Your task to perform on an android device: uninstall "Instagram" Image 0: 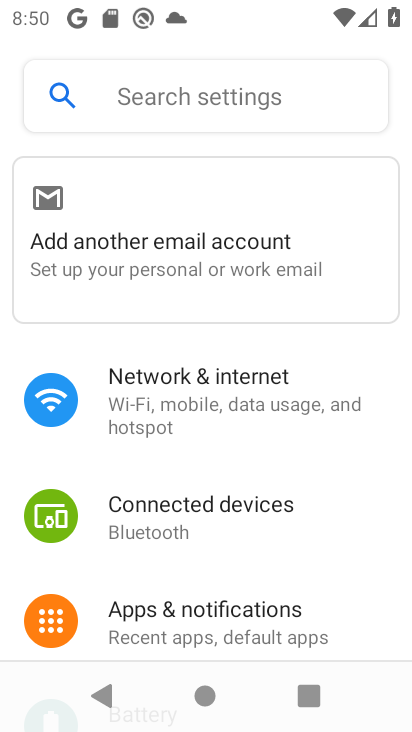
Step 0: drag from (222, 513) to (222, 276)
Your task to perform on an android device: uninstall "Instagram" Image 1: 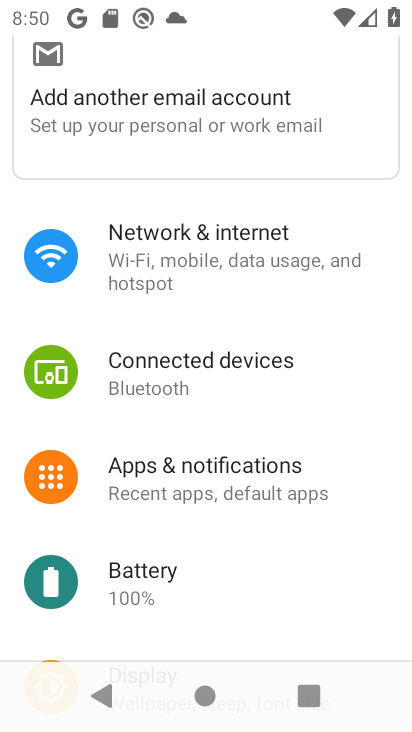
Step 1: drag from (318, 562) to (308, 421)
Your task to perform on an android device: uninstall "Instagram" Image 2: 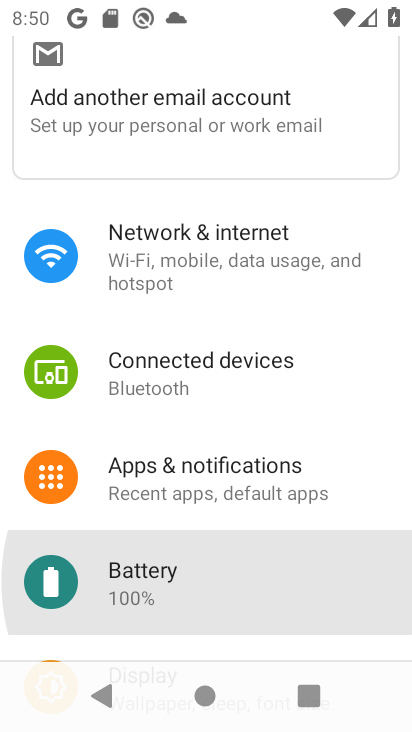
Step 2: drag from (306, 505) to (298, 397)
Your task to perform on an android device: uninstall "Instagram" Image 3: 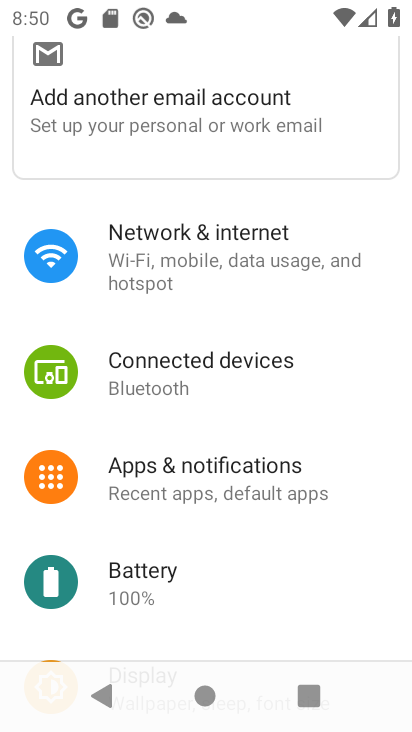
Step 3: drag from (224, 319) to (216, 599)
Your task to perform on an android device: uninstall "Instagram" Image 4: 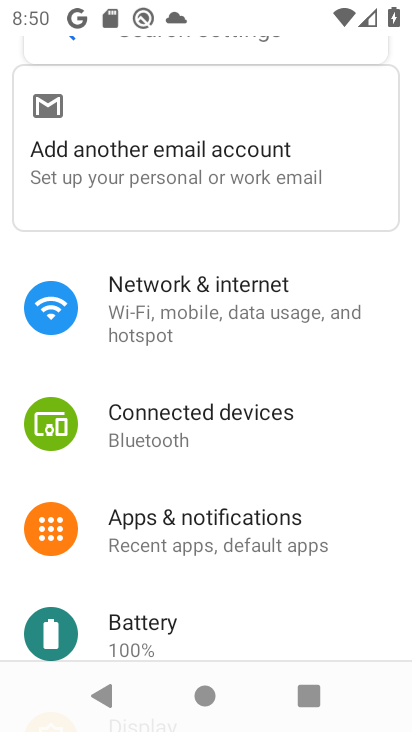
Step 4: drag from (169, 385) to (189, 565)
Your task to perform on an android device: uninstall "Instagram" Image 5: 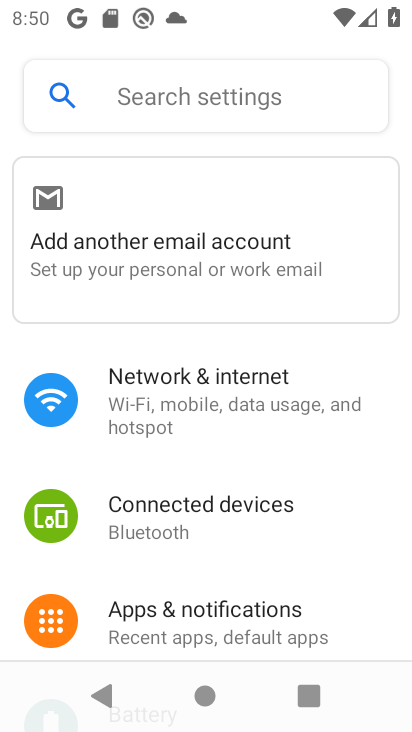
Step 5: drag from (175, 453) to (175, 611)
Your task to perform on an android device: uninstall "Instagram" Image 6: 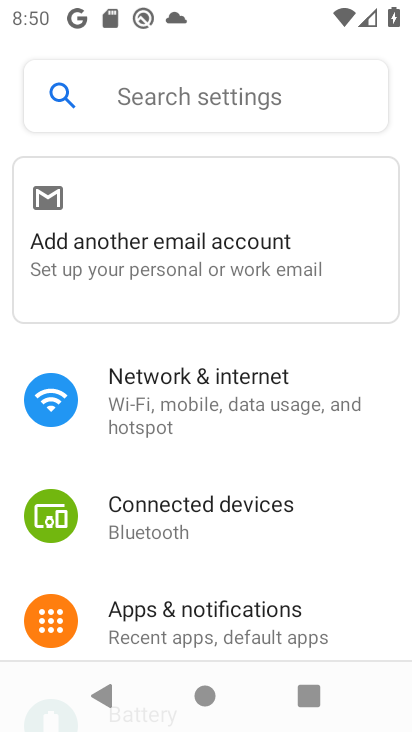
Step 6: press back button
Your task to perform on an android device: uninstall "Instagram" Image 7: 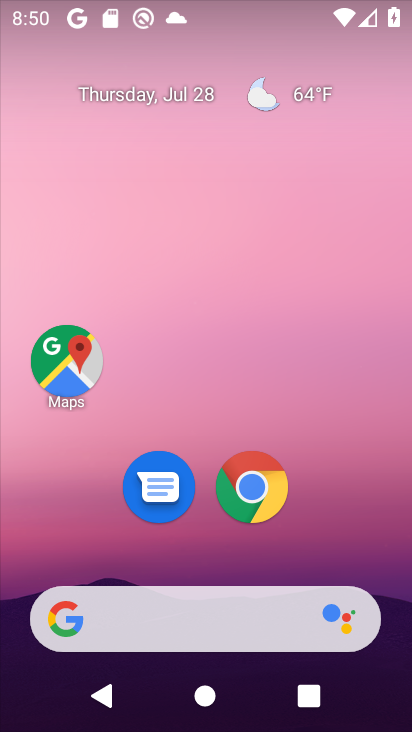
Step 7: drag from (172, 196) to (236, 63)
Your task to perform on an android device: uninstall "Instagram" Image 8: 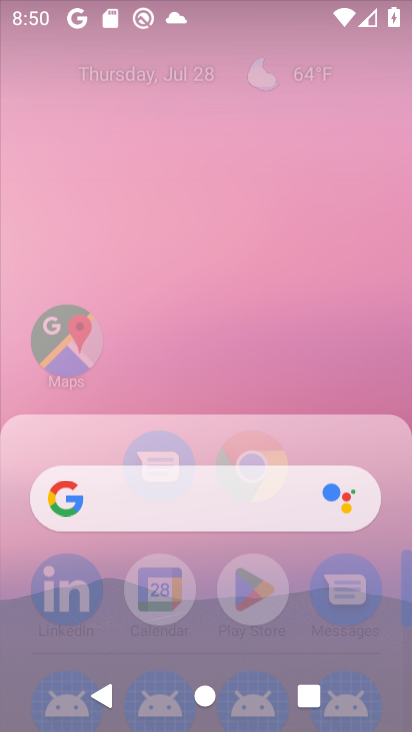
Step 8: drag from (262, 475) to (220, 166)
Your task to perform on an android device: uninstall "Instagram" Image 9: 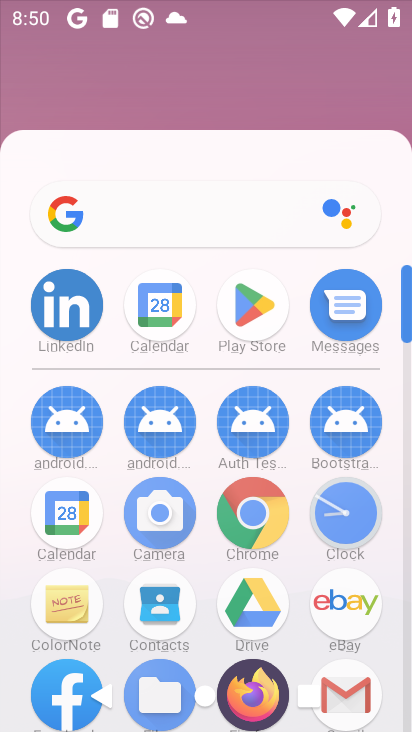
Step 9: drag from (231, 532) to (191, 253)
Your task to perform on an android device: uninstall "Instagram" Image 10: 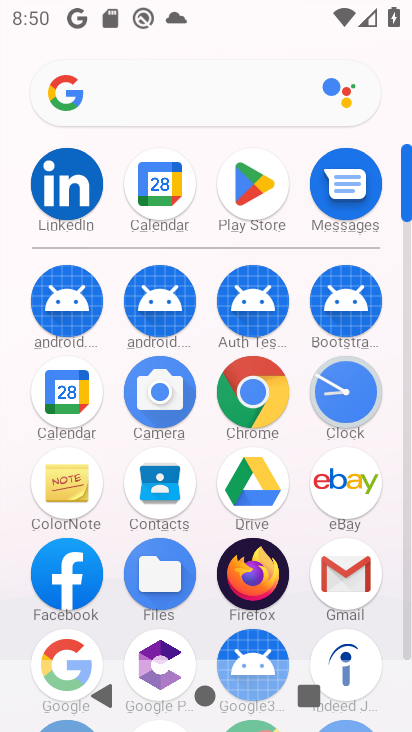
Step 10: click (241, 191)
Your task to perform on an android device: uninstall "Instagram" Image 11: 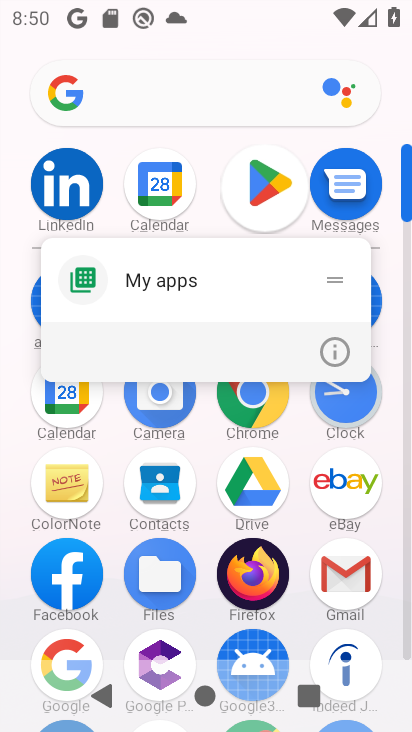
Step 11: click (252, 194)
Your task to perform on an android device: uninstall "Instagram" Image 12: 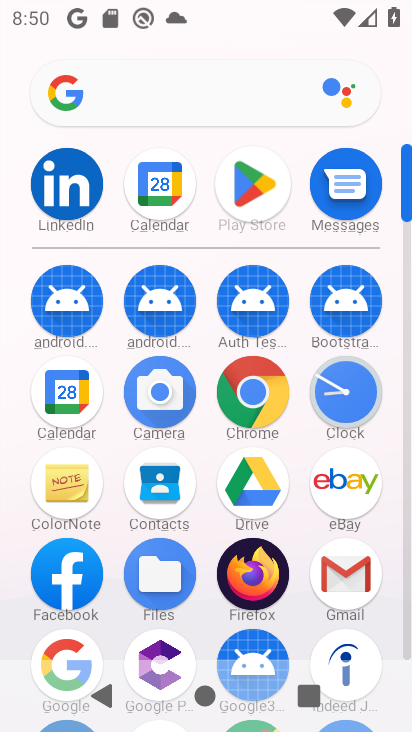
Step 12: click (255, 194)
Your task to perform on an android device: uninstall "Instagram" Image 13: 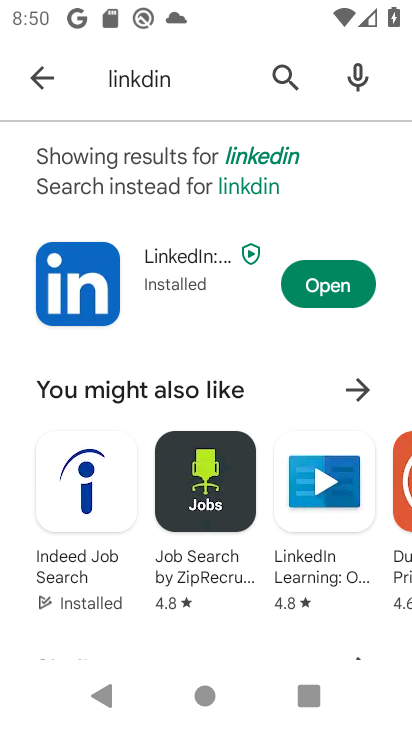
Step 13: click (258, 190)
Your task to perform on an android device: uninstall "Instagram" Image 14: 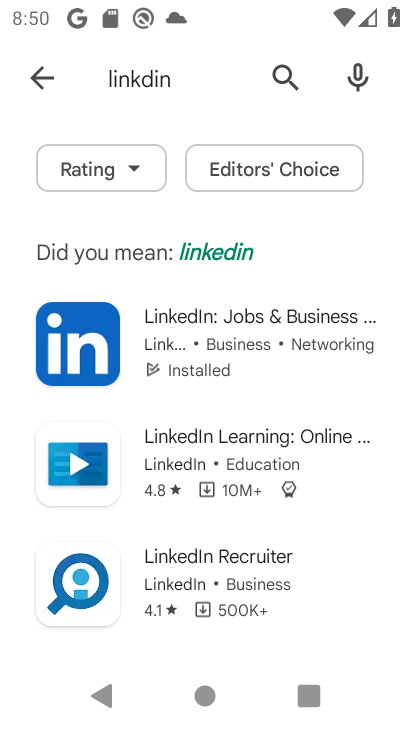
Step 14: click (47, 75)
Your task to perform on an android device: uninstall "Instagram" Image 15: 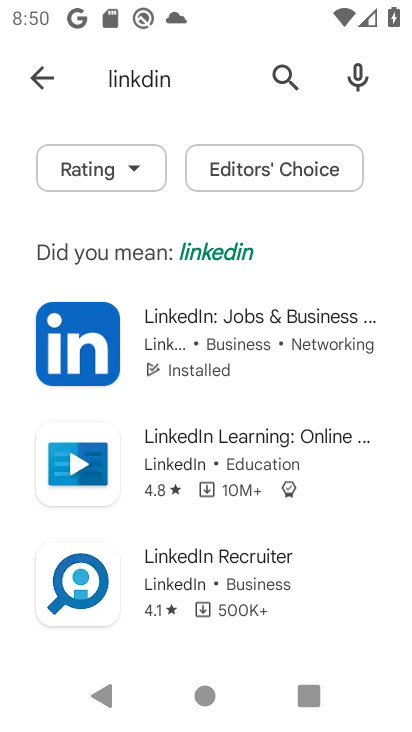
Step 15: click (39, 71)
Your task to perform on an android device: uninstall "Instagram" Image 16: 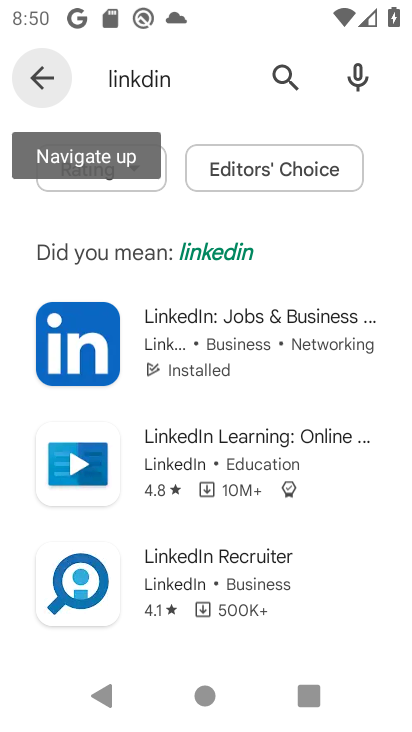
Step 16: click (59, 86)
Your task to perform on an android device: uninstall "Instagram" Image 17: 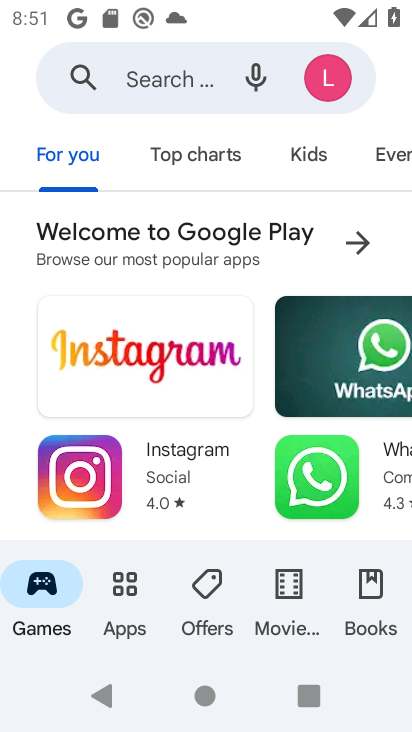
Step 17: click (160, 75)
Your task to perform on an android device: uninstall "Instagram" Image 18: 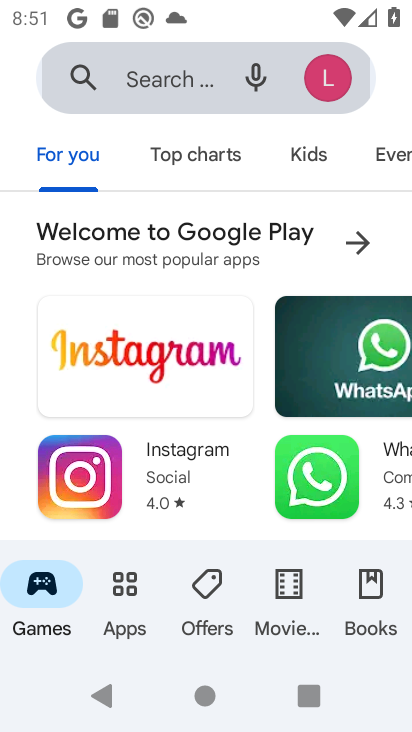
Step 18: click (138, 81)
Your task to perform on an android device: uninstall "Instagram" Image 19: 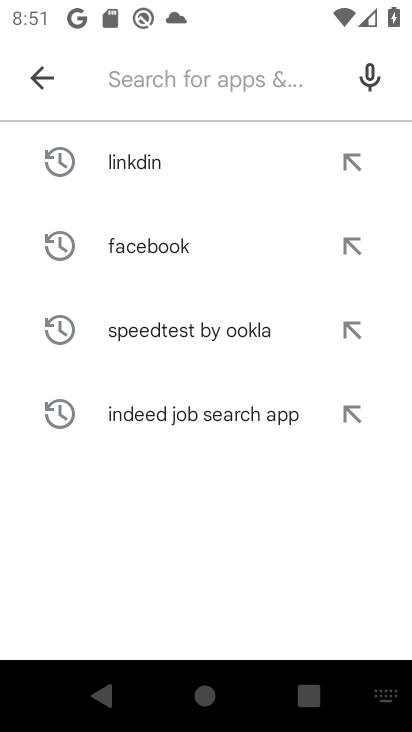
Step 19: click (158, 74)
Your task to perform on an android device: uninstall "Instagram" Image 20: 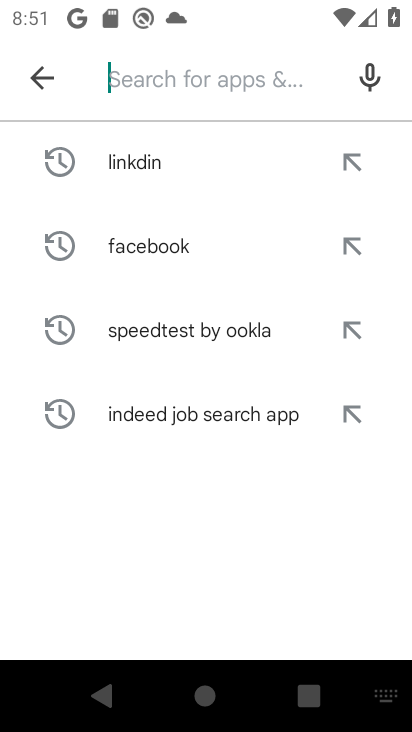
Step 20: click (151, 83)
Your task to perform on an android device: uninstall "Instagram" Image 21: 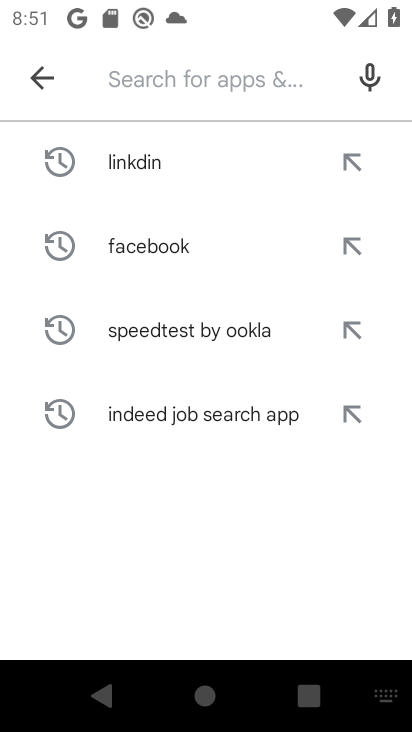
Step 21: type "instagram"
Your task to perform on an android device: uninstall "Instagram" Image 22: 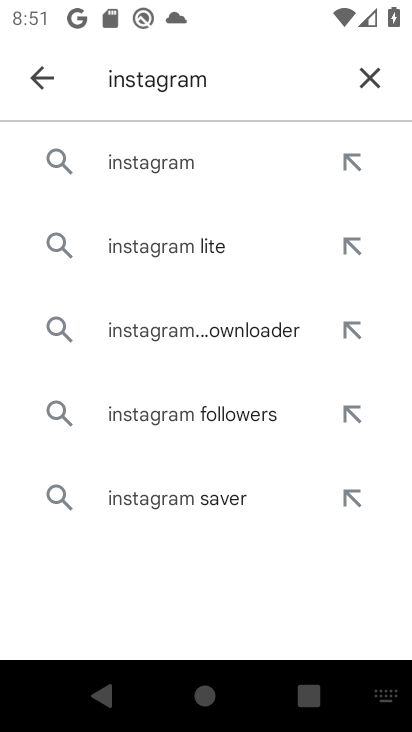
Step 22: click (336, 166)
Your task to perform on an android device: uninstall "Instagram" Image 23: 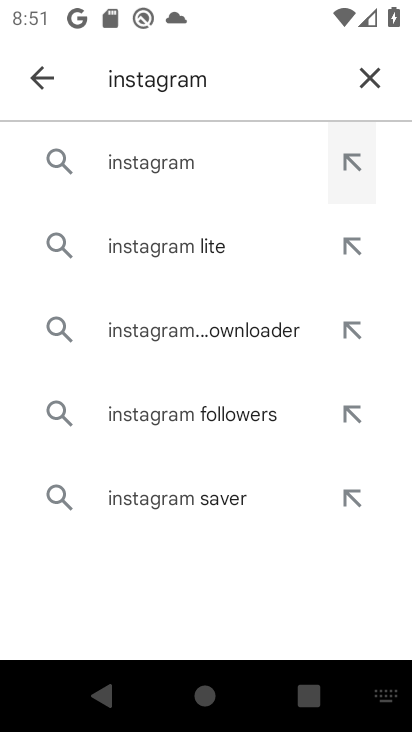
Step 23: click (340, 166)
Your task to perform on an android device: uninstall "Instagram" Image 24: 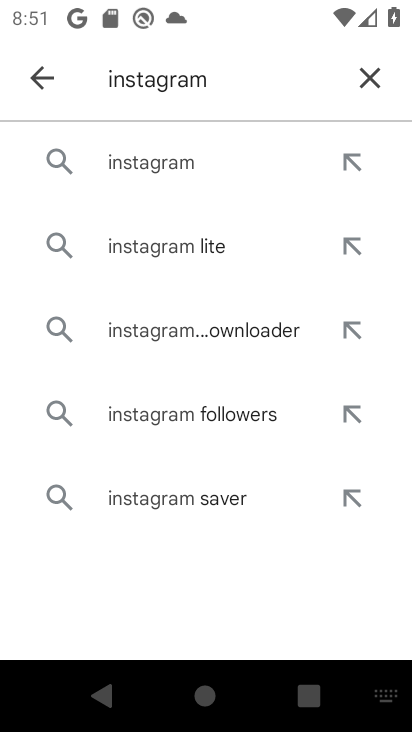
Step 24: click (340, 166)
Your task to perform on an android device: uninstall "Instagram" Image 25: 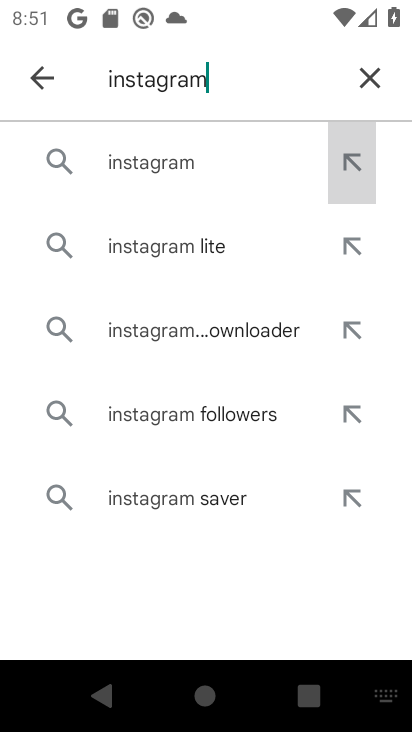
Step 25: click (346, 166)
Your task to perform on an android device: uninstall "Instagram" Image 26: 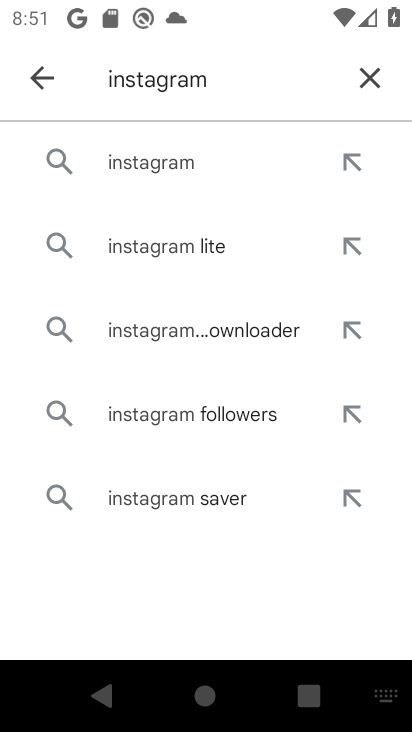
Step 26: click (148, 156)
Your task to perform on an android device: uninstall "Instagram" Image 27: 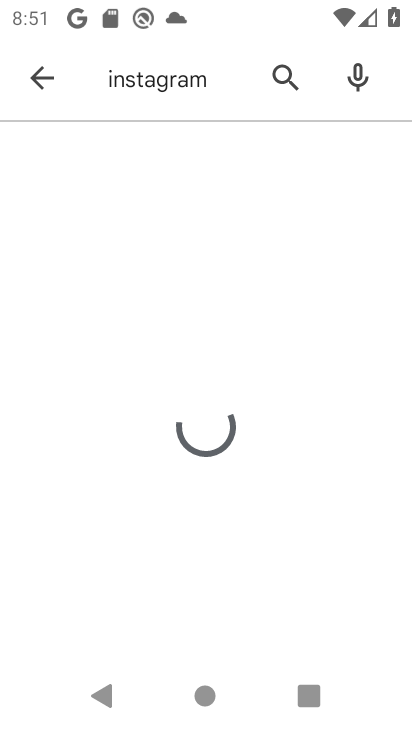
Step 27: click (157, 154)
Your task to perform on an android device: uninstall "Instagram" Image 28: 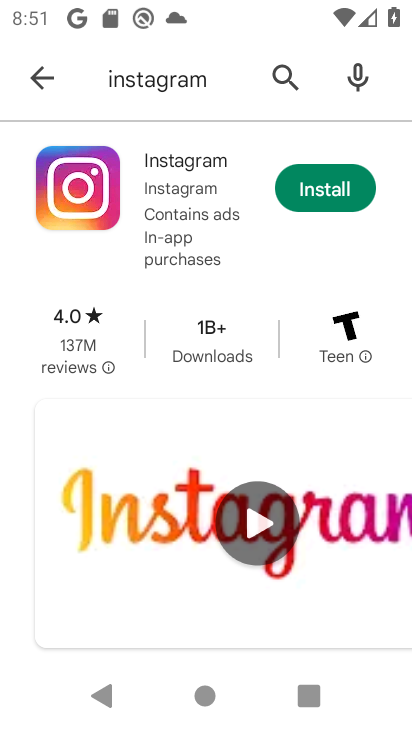
Step 28: task complete